Your task to perform on an android device: Do I have any events tomorrow? Image 0: 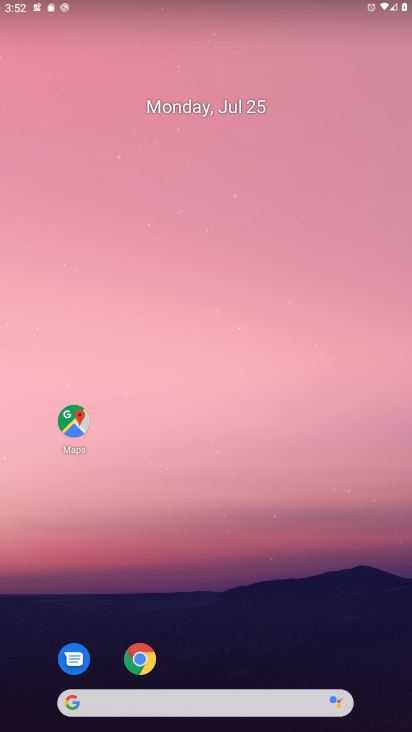
Step 0: click (157, 705)
Your task to perform on an android device: Do I have any events tomorrow? Image 1: 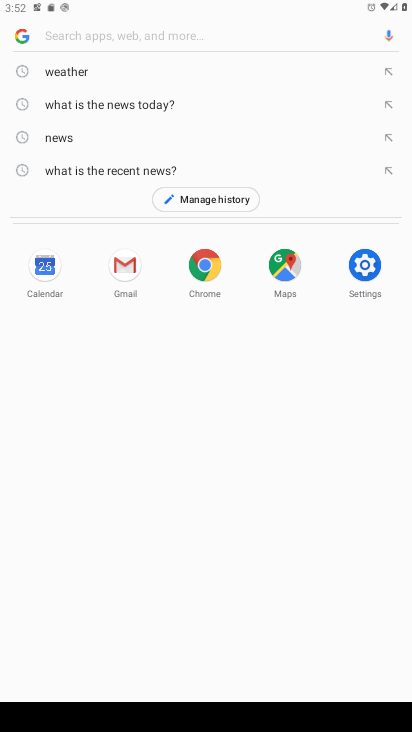
Step 1: press home button
Your task to perform on an android device: Do I have any events tomorrow? Image 2: 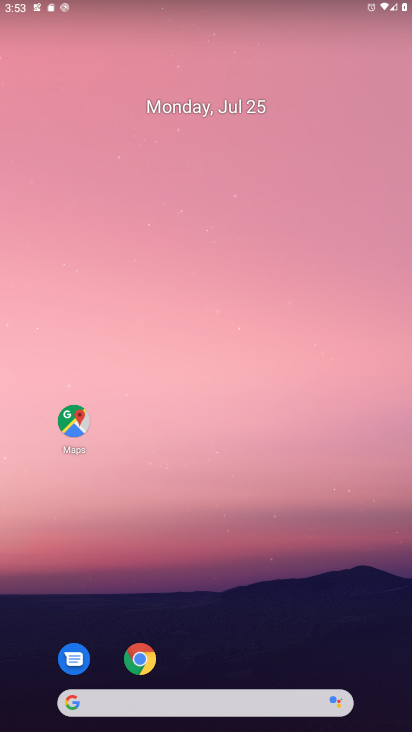
Step 2: drag from (219, 618) to (241, 1)
Your task to perform on an android device: Do I have any events tomorrow? Image 3: 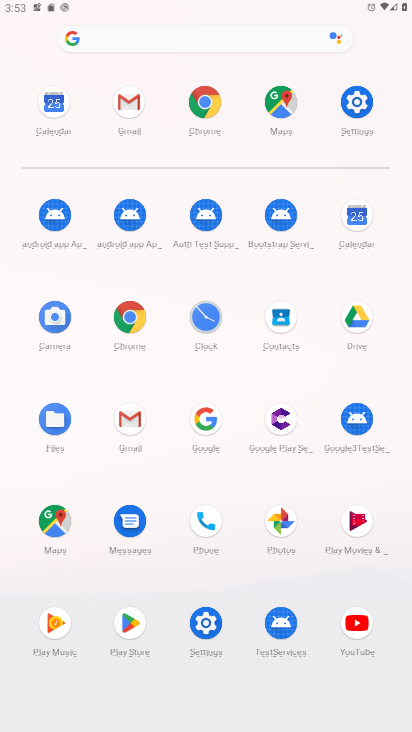
Step 3: click (355, 285)
Your task to perform on an android device: Do I have any events tomorrow? Image 4: 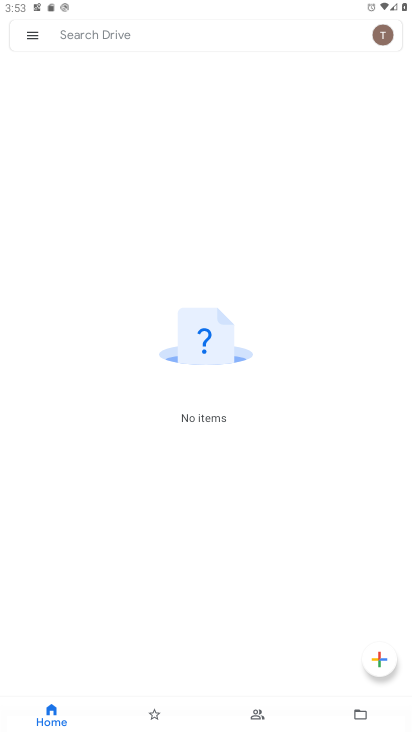
Step 4: press home button
Your task to perform on an android device: Do I have any events tomorrow? Image 5: 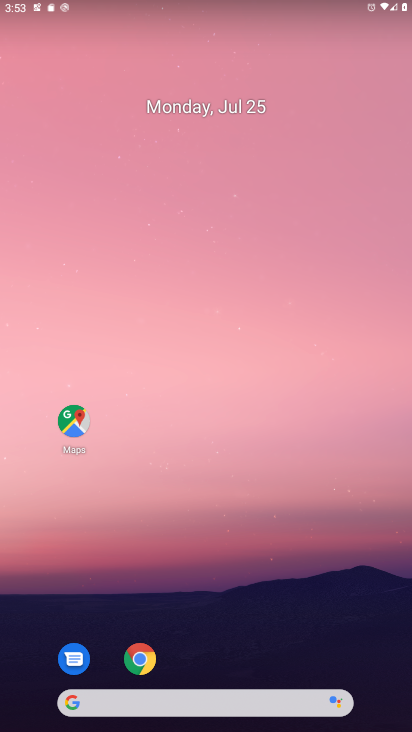
Step 5: drag from (208, 569) to (226, 112)
Your task to perform on an android device: Do I have any events tomorrow? Image 6: 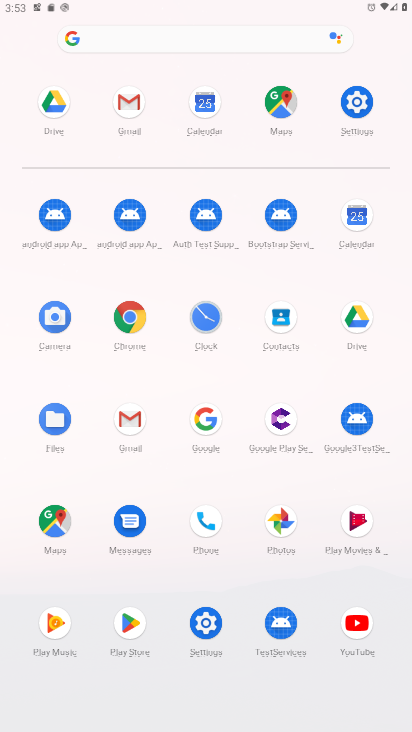
Step 6: click (356, 222)
Your task to perform on an android device: Do I have any events tomorrow? Image 7: 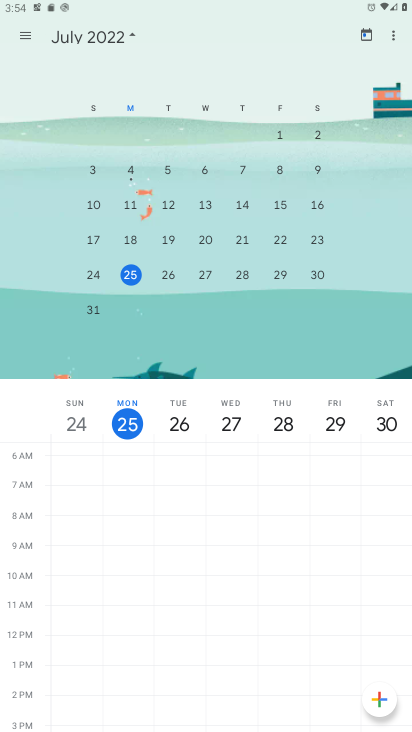
Step 7: click (161, 278)
Your task to perform on an android device: Do I have any events tomorrow? Image 8: 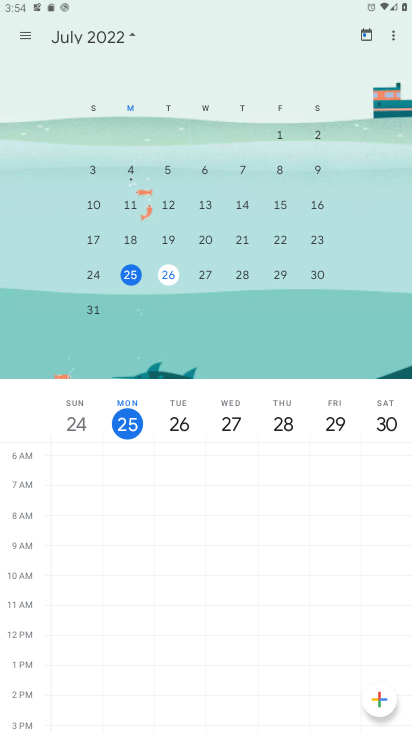
Step 8: click (161, 278)
Your task to perform on an android device: Do I have any events tomorrow? Image 9: 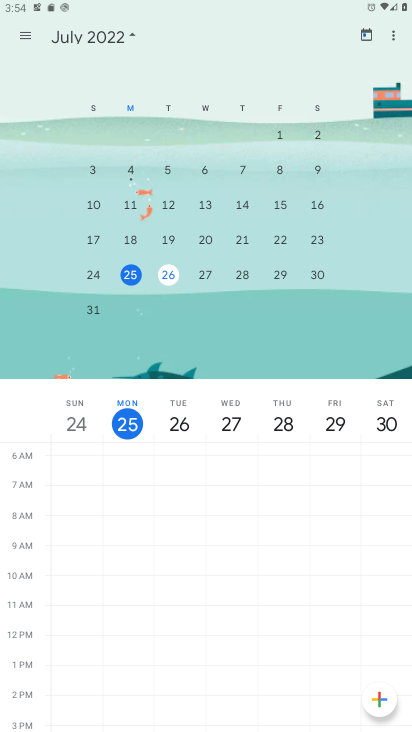
Step 9: click (168, 272)
Your task to perform on an android device: Do I have any events tomorrow? Image 10: 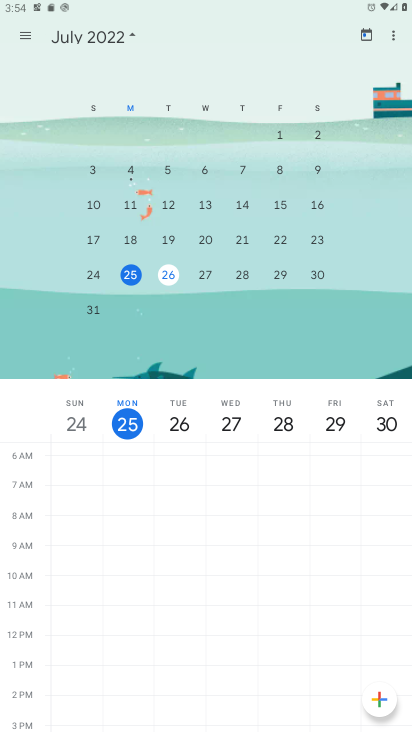
Step 10: click (168, 272)
Your task to perform on an android device: Do I have any events tomorrow? Image 11: 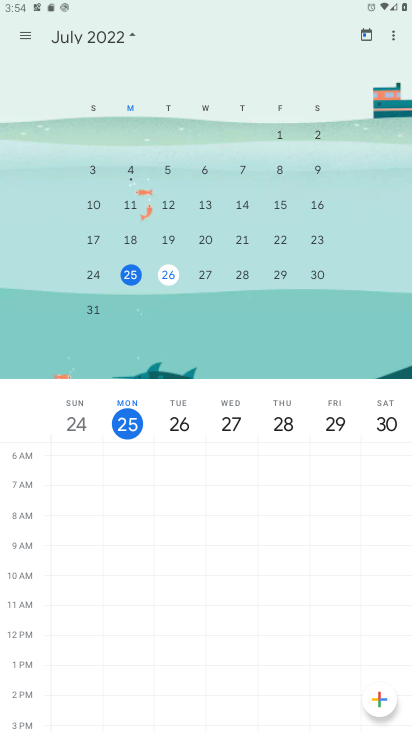
Step 11: task complete